Your task to perform on an android device: open app "VLC for Android" (install if not already installed) Image 0: 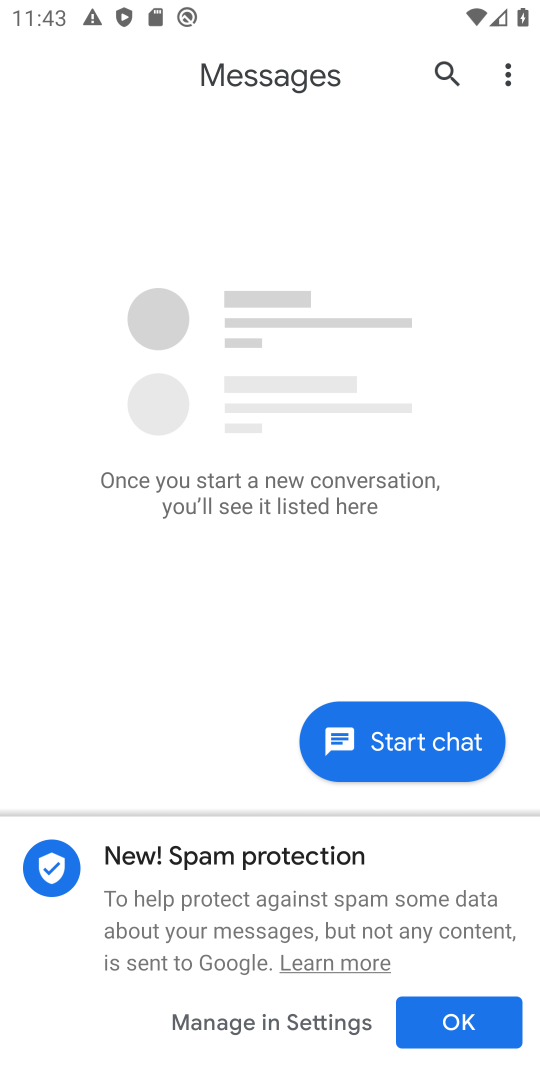
Step 0: press home button
Your task to perform on an android device: open app "VLC for Android" (install if not already installed) Image 1: 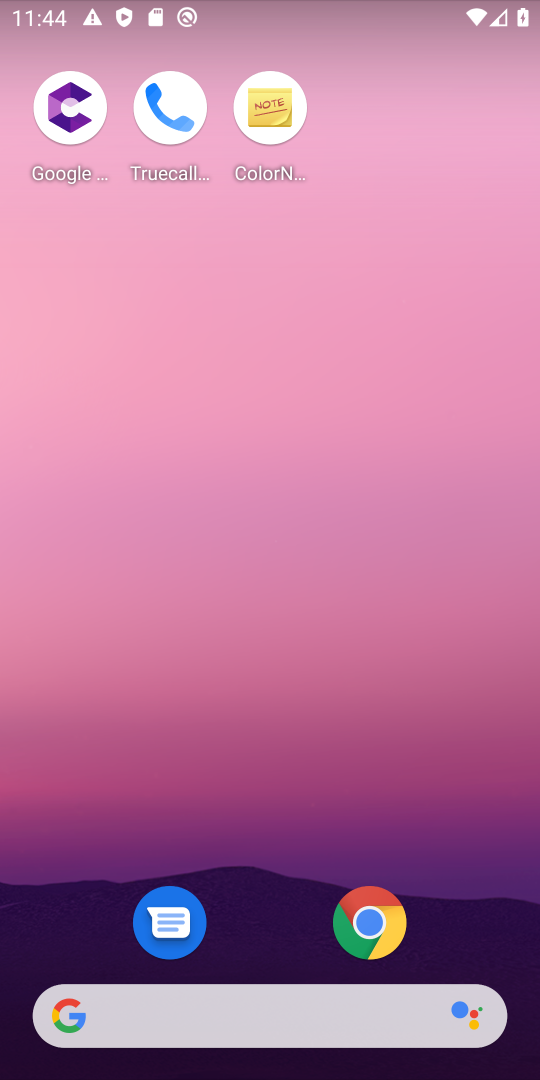
Step 1: drag from (267, 965) to (282, 34)
Your task to perform on an android device: open app "VLC for Android" (install if not already installed) Image 2: 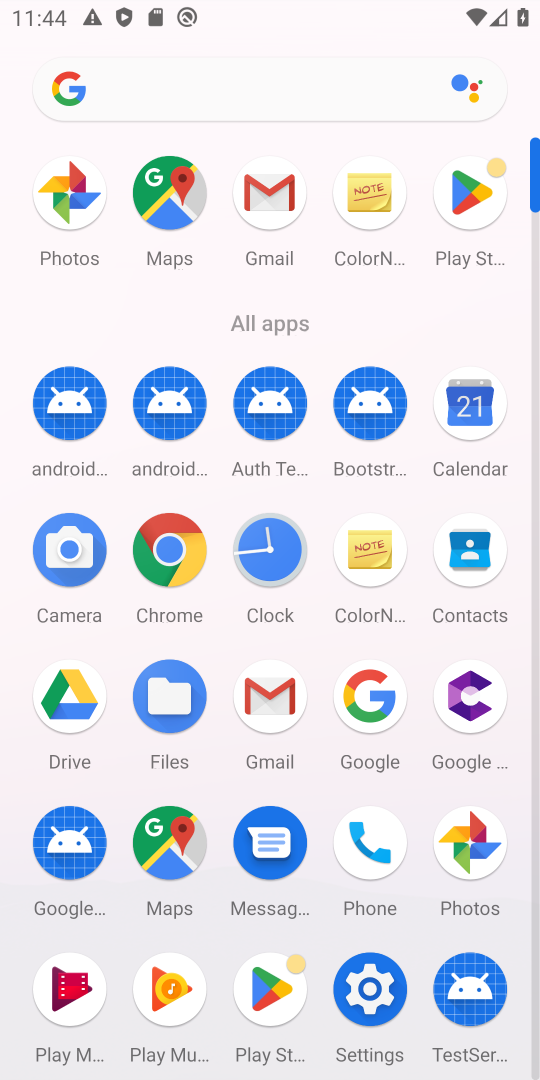
Step 2: click (265, 993)
Your task to perform on an android device: open app "VLC for Android" (install if not already installed) Image 3: 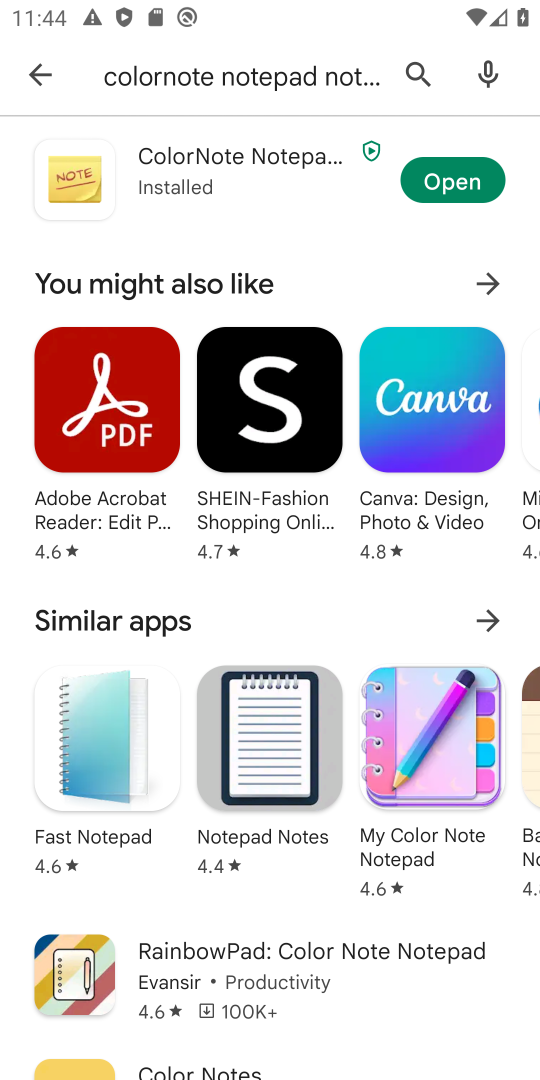
Step 3: click (41, 60)
Your task to perform on an android device: open app "VLC for Android" (install if not already installed) Image 4: 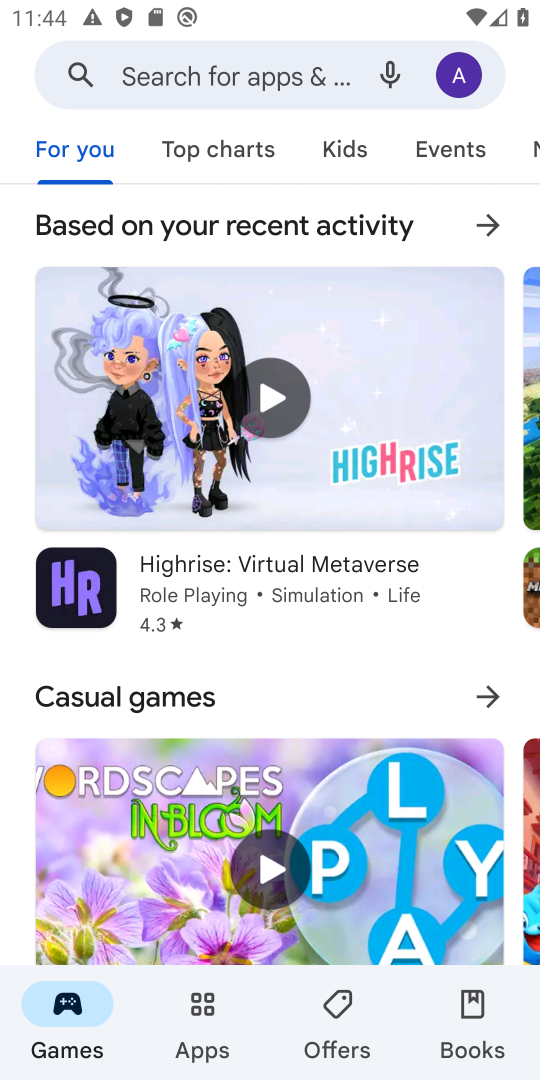
Step 4: click (217, 74)
Your task to perform on an android device: open app "VLC for Android" (install if not already installed) Image 5: 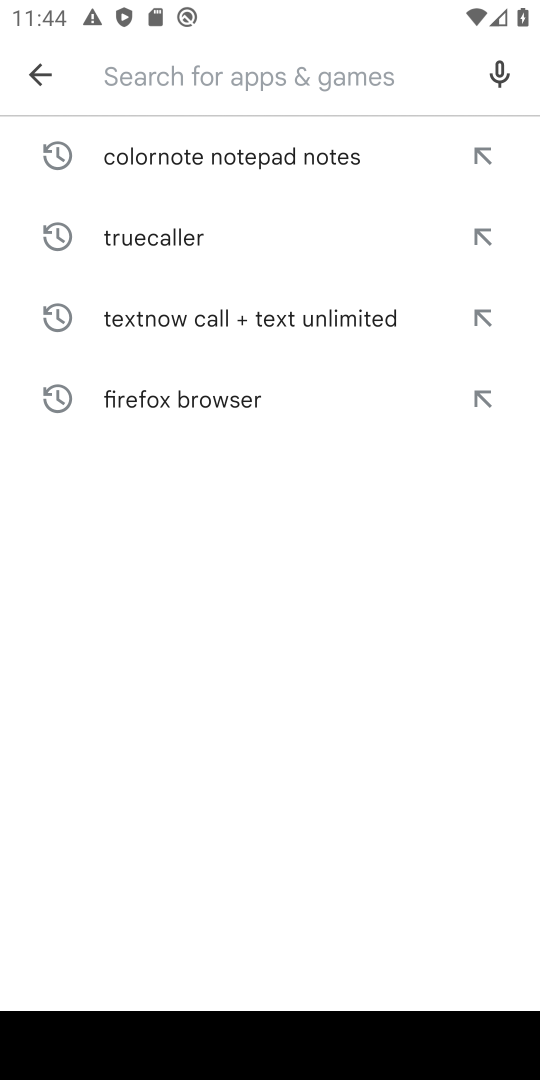
Step 5: type "VLC for Android"
Your task to perform on an android device: open app "VLC for Android" (install if not already installed) Image 6: 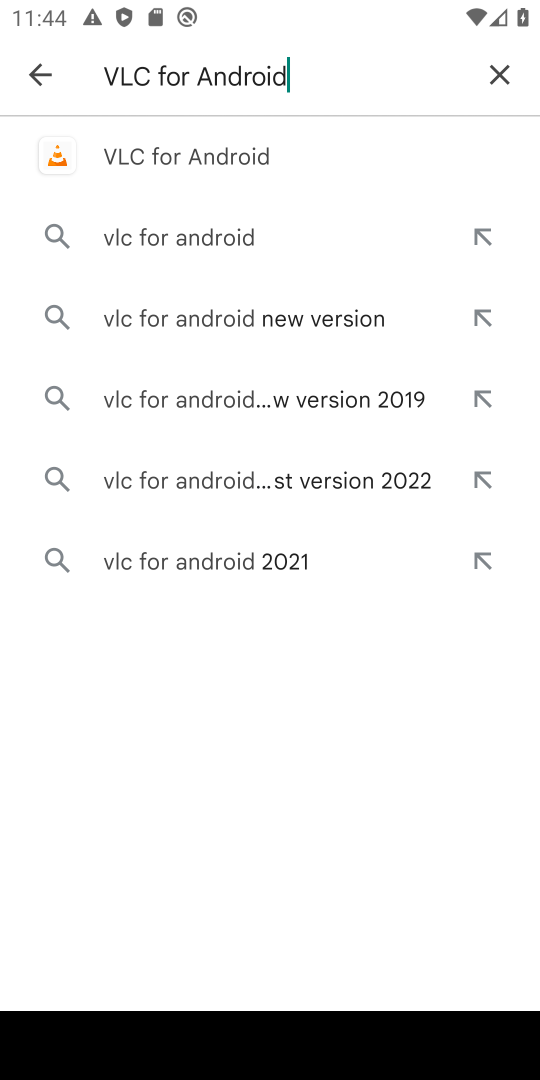
Step 6: click (251, 177)
Your task to perform on an android device: open app "VLC for Android" (install if not already installed) Image 7: 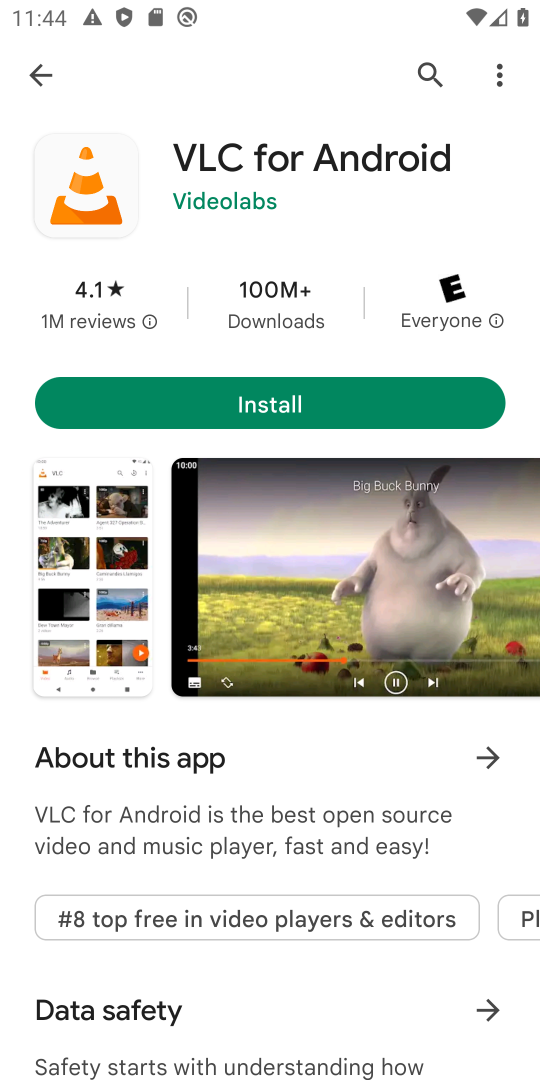
Step 7: click (267, 402)
Your task to perform on an android device: open app "VLC for Android" (install if not already installed) Image 8: 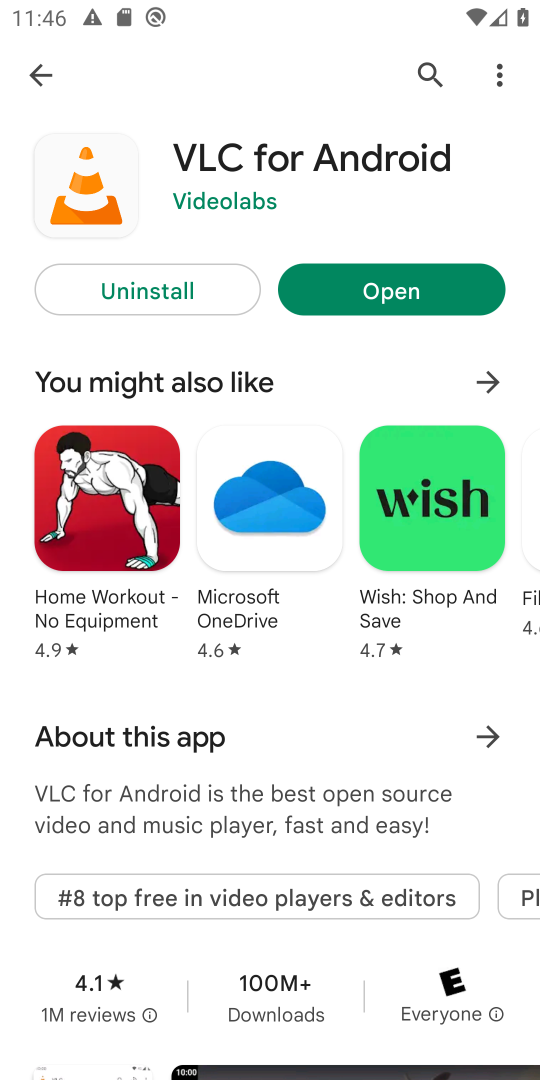
Step 8: click (378, 307)
Your task to perform on an android device: open app "VLC for Android" (install if not already installed) Image 9: 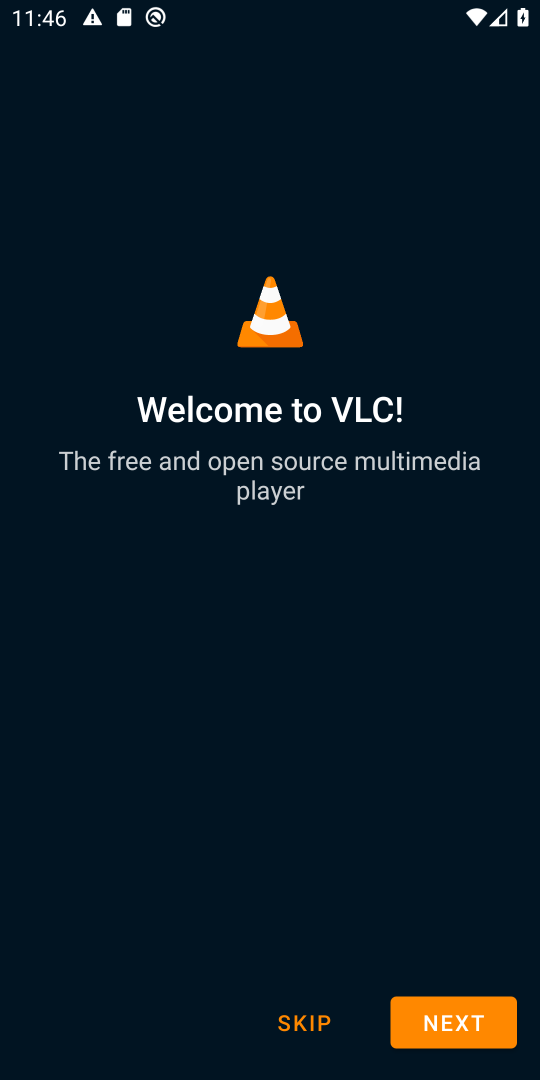
Step 9: task complete